Your task to perform on an android device: search for starred emails in the gmail app Image 0: 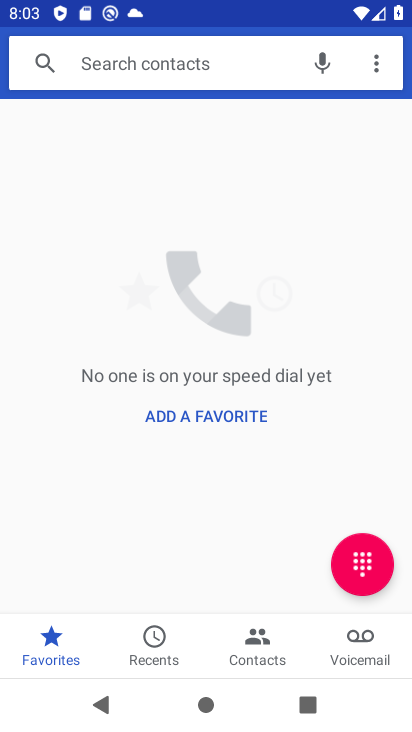
Step 0: press home button
Your task to perform on an android device: search for starred emails in the gmail app Image 1: 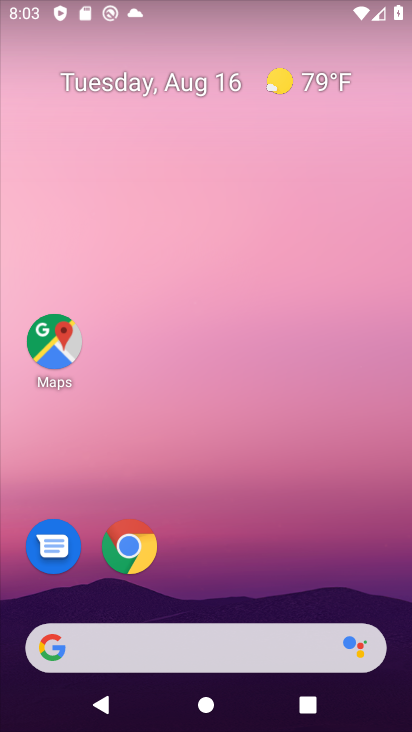
Step 1: drag from (213, 255) to (230, 144)
Your task to perform on an android device: search for starred emails in the gmail app Image 2: 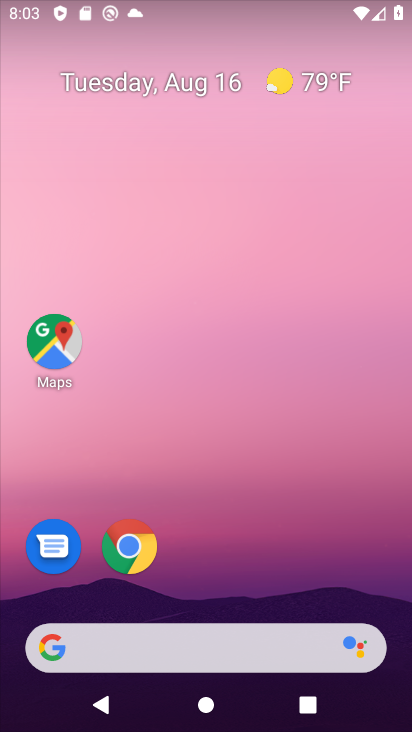
Step 2: drag from (171, 497) to (186, 118)
Your task to perform on an android device: search for starred emails in the gmail app Image 3: 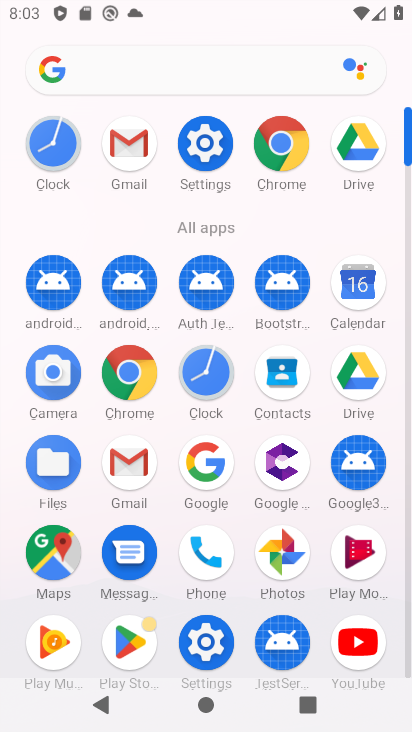
Step 3: click (122, 144)
Your task to perform on an android device: search for starred emails in the gmail app Image 4: 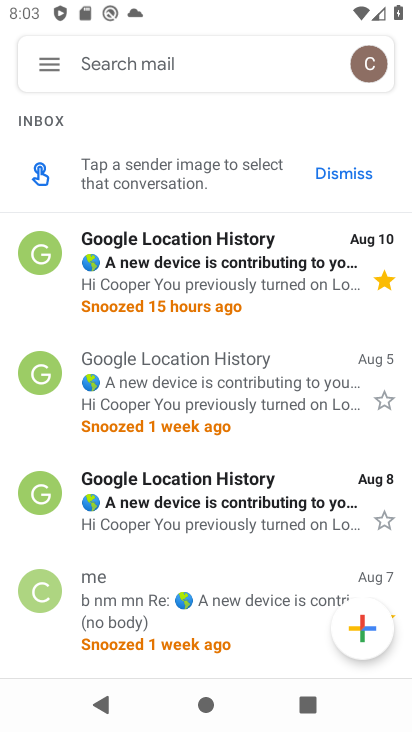
Step 4: click (43, 69)
Your task to perform on an android device: search for starred emails in the gmail app Image 5: 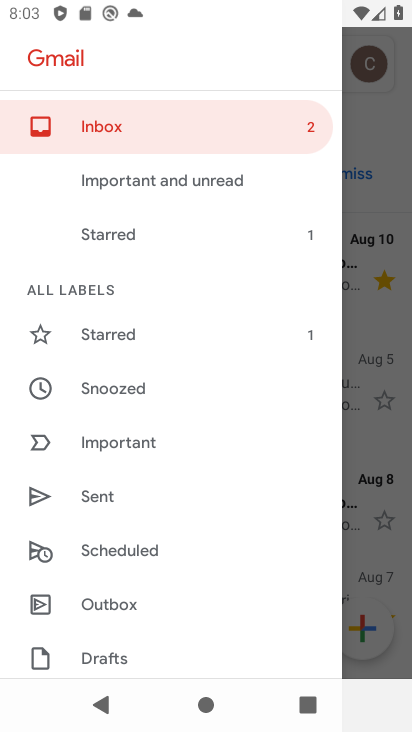
Step 5: click (102, 338)
Your task to perform on an android device: search for starred emails in the gmail app Image 6: 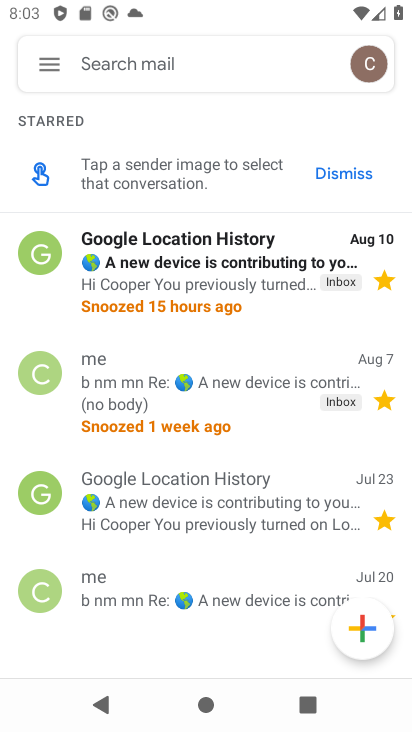
Step 6: task complete